Your task to perform on an android device: open app "LinkedIn" (install if not already installed) Image 0: 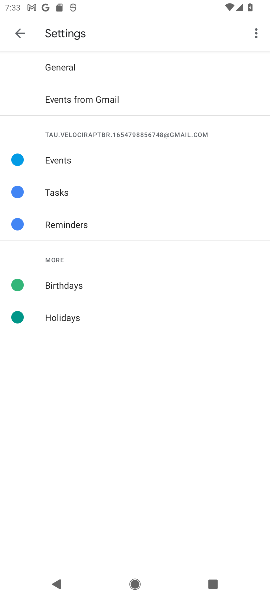
Step 0: click (21, 33)
Your task to perform on an android device: open app "LinkedIn" (install if not already installed) Image 1: 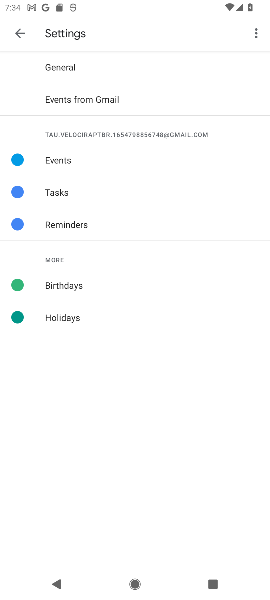
Step 1: click (21, 33)
Your task to perform on an android device: open app "LinkedIn" (install if not already installed) Image 2: 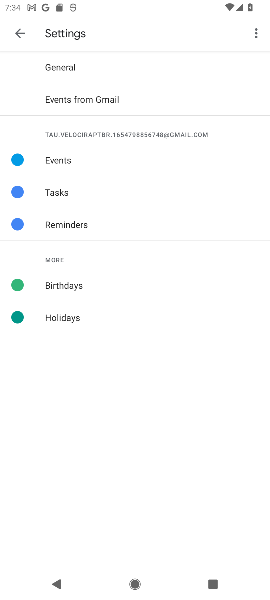
Step 2: click (21, 33)
Your task to perform on an android device: open app "LinkedIn" (install if not already installed) Image 3: 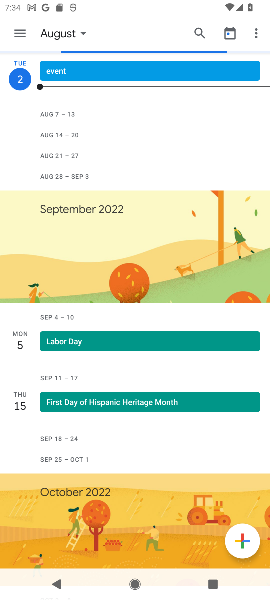
Step 3: click (21, 33)
Your task to perform on an android device: open app "LinkedIn" (install if not already installed) Image 4: 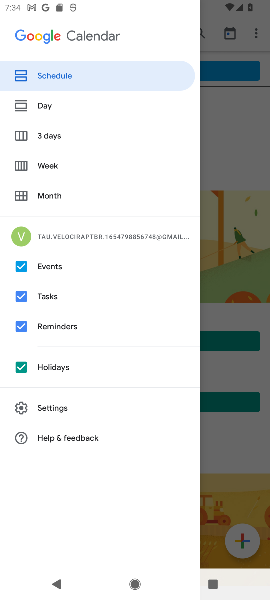
Step 4: press back button
Your task to perform on an android device: open app "LinkedIn" (install if not already installed) Image 5: 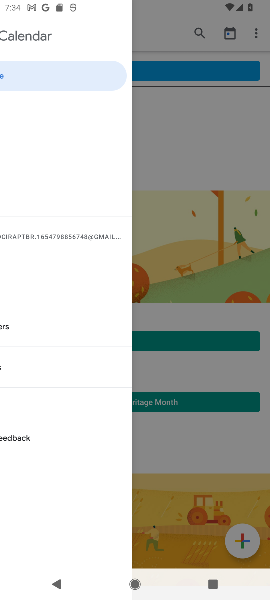
Step 5: press back button
Your task to perform on an android device: open app "LinkedIn" (install if not already installed) Image 6: 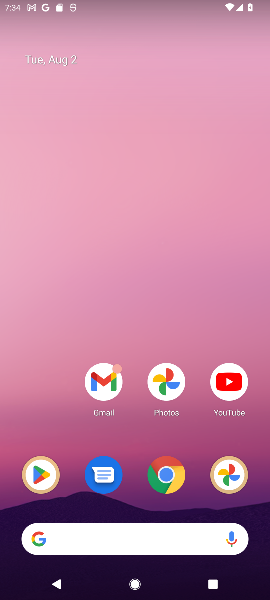
Step 6: press home button
Your task to perform on an android device: open app "LinkedIn" (install if not already installed) Image 7: 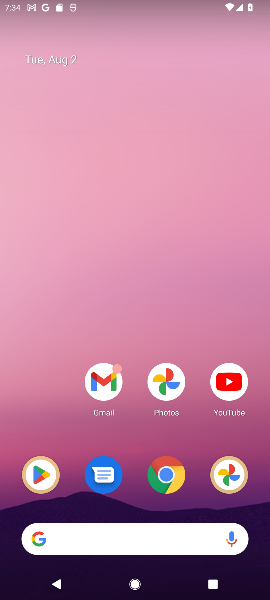
Step 7: drag from (168, 439) to (139, 37)
Your task to perform on an android device: open app "LinkedIn" (install if not already installed) Image 8: 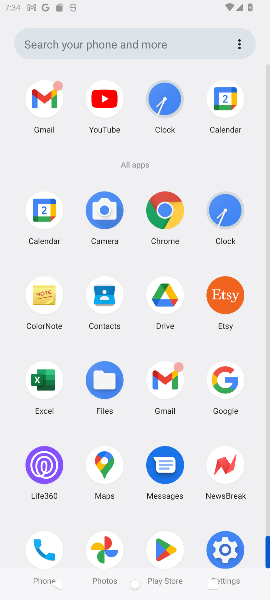
Step 8: drag from (193, 373) to (141, 138)
Your task to perform on an android device: open app "LinkedIn" (install if not already installed) Image 9: 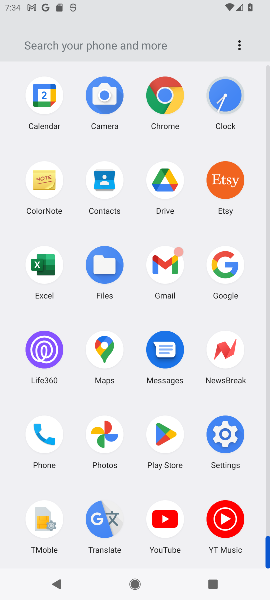
Step 9: click (157, 437)
Your task to perform on an android device: open app "LinkedIn" (install if not already installed) Image 10: 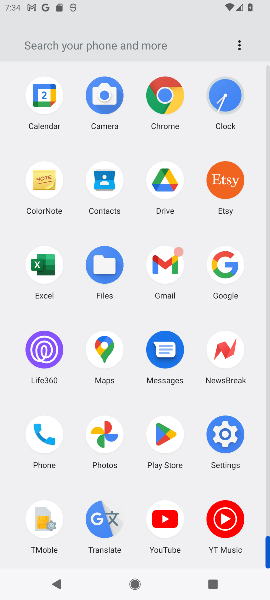
Step 10: click (157, 437)
Your task to perform on an android device: open app "LinkedIn" (install if not already installed) Image 11: 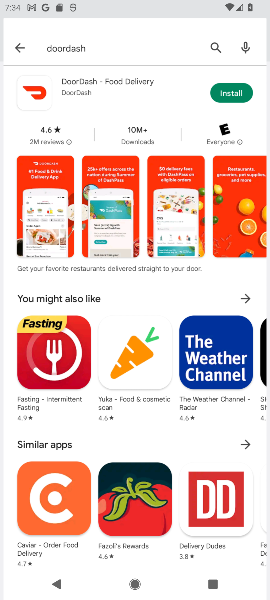
Step 11: click (157, 437)
Your task to perform on an android device: open app "LinkedIn" (install if not already installed) Image 12: 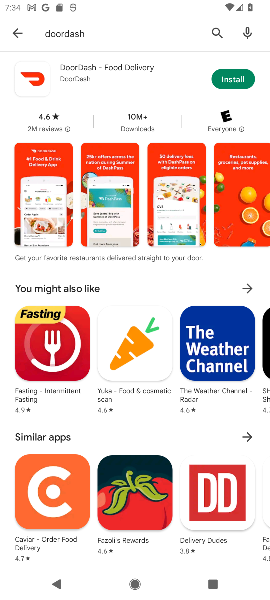
Step 12: click (158, 437)
Your task to perform on an android device: open app "LinkedIn" (install if not already installed) Image 13: 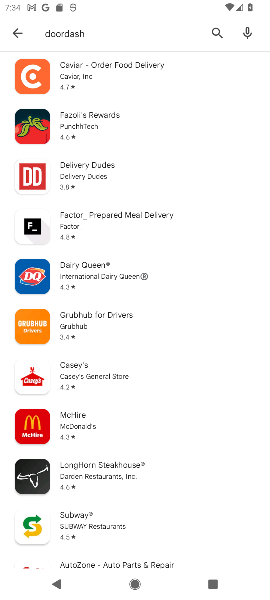
Step 13: click (17, 26)
Your task to perform on an android device: open app "LinkedIn" (install if not already installed) Image 14: 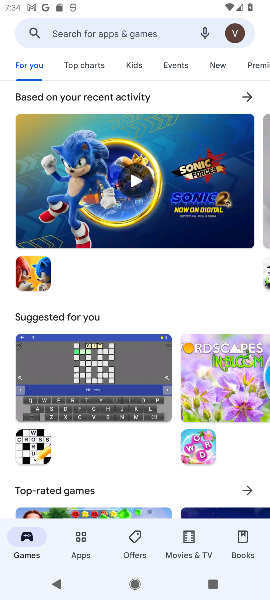
Step 14: click (66, 30)
Your task to perform on an android device: open app "LinkedIn" (install if not already installed) Image 15: 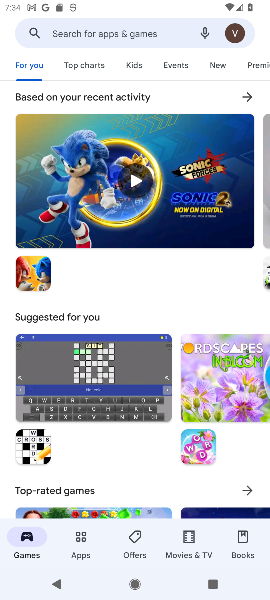
Step 15: click (66, 30)
Your task to perform on an android device: open app "LinkedIn" (install if not already installed) Image 16: 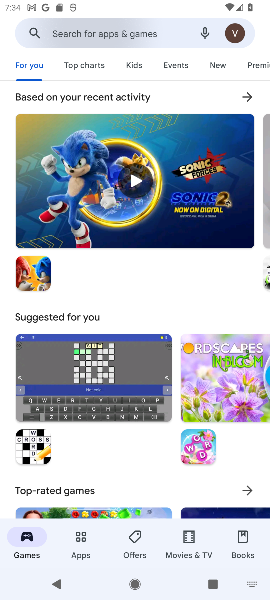
Step 16: click (66, 30)
Your task to perform on an android device: open app "LinkedIn" (install if not already installed) Image 17: 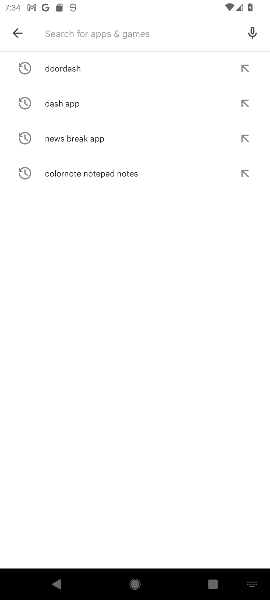
Step 17: click (66, 30)
Your task to perform on an android device: open app "LinkedIn" (install if not already installed) Image 18: 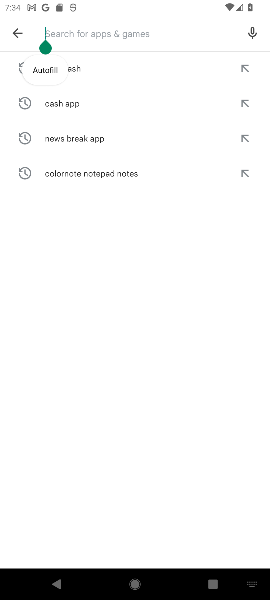
Step 18: click (66, 30)
Your task to perform on an android device: open app "LinkedIn" (install if not already installed) Image 19: 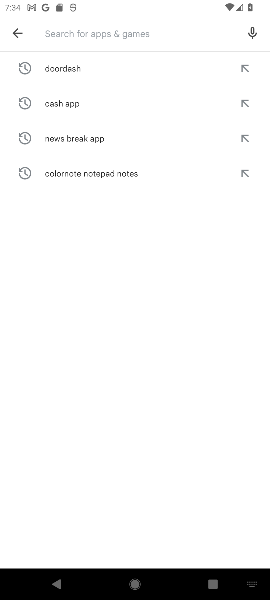
Step 19: click (66, 30)
Your task to perform on an android device: open app "LinkedIn" (install if not already installed) Image 20: 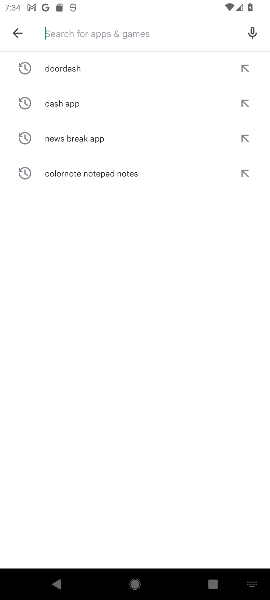
Step 20: type "linkdin"
Your task to perform on an android device: open app "LinkedIn" (install if not already installed) Image 21: 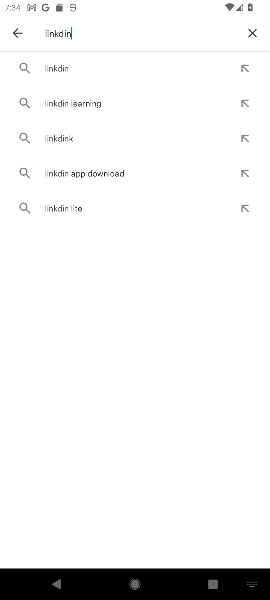
Step 21: click (54, 69)
Your task to perform on an android device: open app "LinkedIn" (install if not already installed) Image 22: 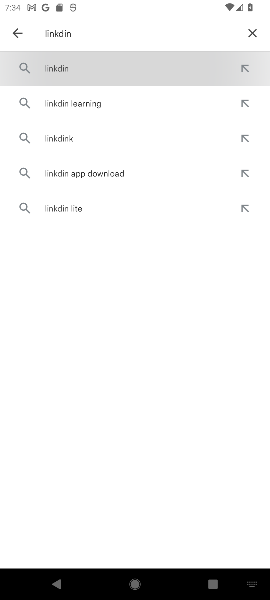
Step 22: click (54, 69)
Your task to perform on an android device: open app "LinkedIn" (install if not already installed) Image 23: 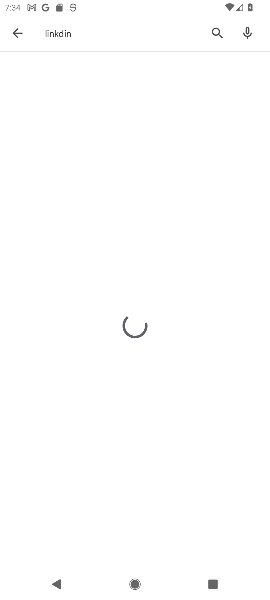
Step 23: click (53, 71)
Your task to perform on an android device: open app "LinkedIn" (install if not already installed) Image 24: 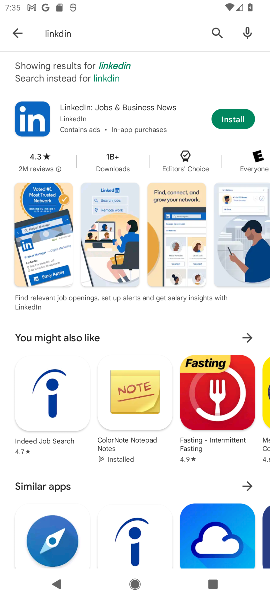
Step 24: click (230, 120)
Your task to perform on an android device: open app "LinkedIn" (install if not already installed) Image 25: 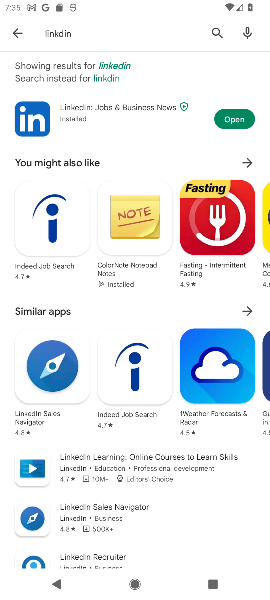
Step 25: click (229, 118)
Your task to perform on an android device: open app "LinkedIn" (install if not already installed) Image 26: 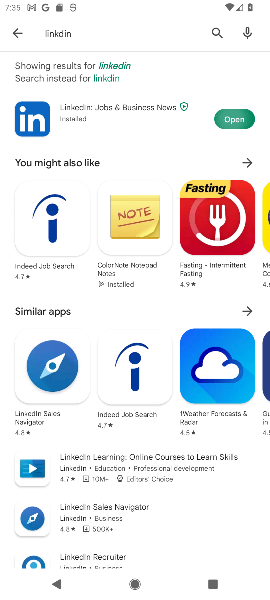
Step 26: click (230, 118)
Your task to perform on an android device: open app "LinkedIn" (install if not already installed) Image 27: 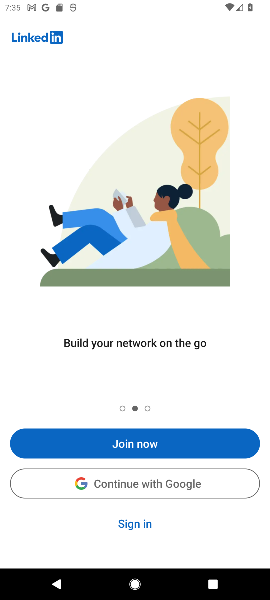
Step 27: click (146, 438)
Your task to perform on an android device: open app "LinkedIn" (install if not already installed) Image 28: 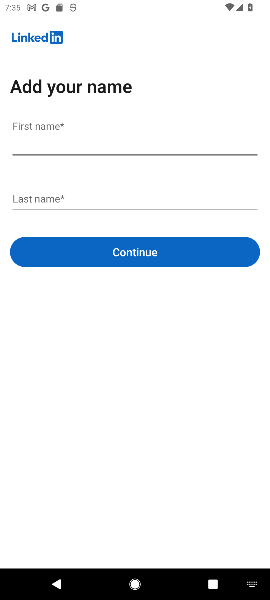
Step 28: task complete